Your task to perform on an android device: Open notification settings Image 0: 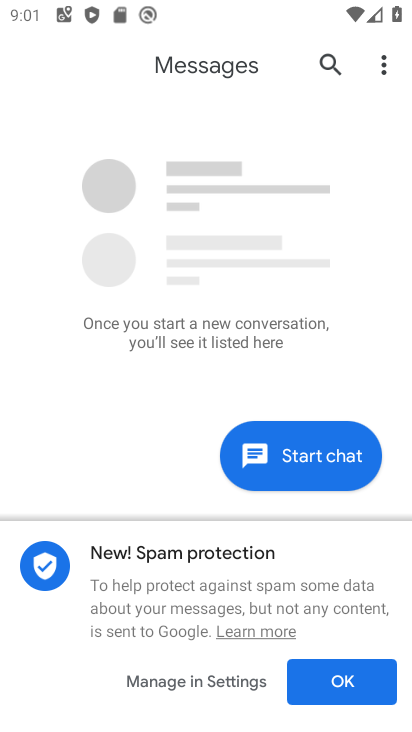
Step 0: press home button
Your task to perform on an android device: Open notification settings Image 1: 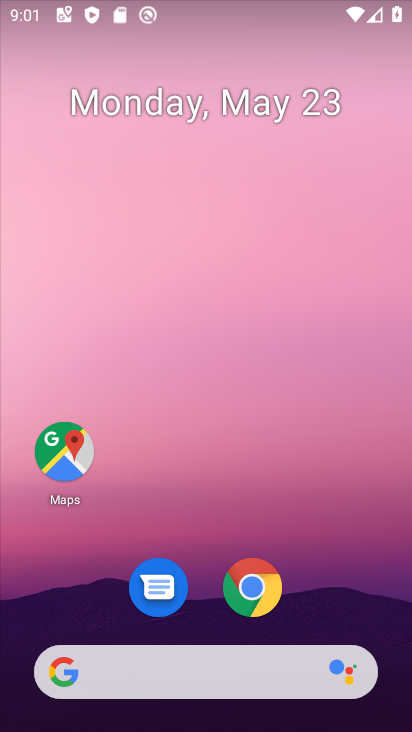
Step 1: drag from (368, 532) to (409, 134)
Your task to perform on an android device: Open notification settings Image 2: 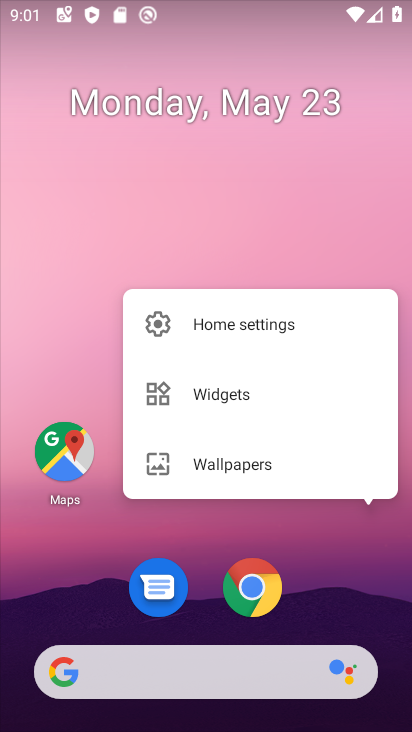
Step 2: click (321, 211)
Your task to perform on an android device: Open notification settings Image 3: 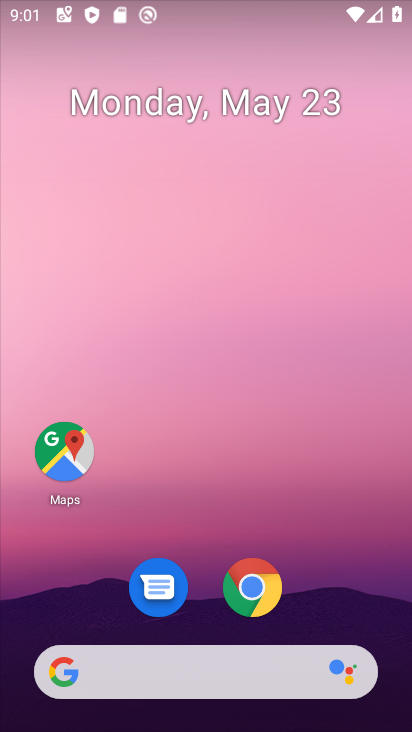
Step 3: click (343, 566)
Your task to perform on an android device: Open notification settings Image 4: 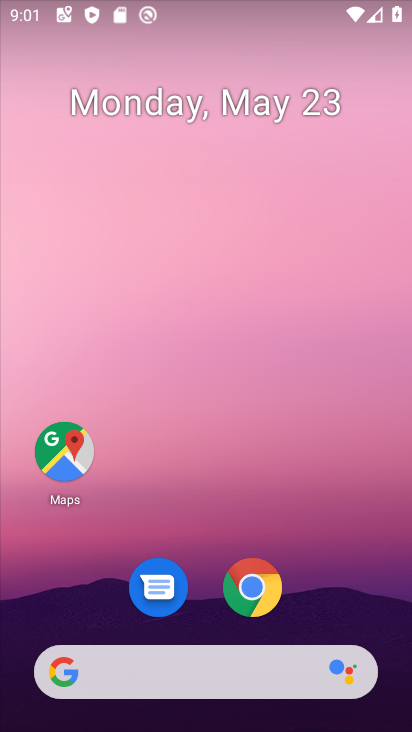
Step 4: drag from (343, 566) to (298, 303)
Your task to perform on an android device: Open notification settings Image 5: 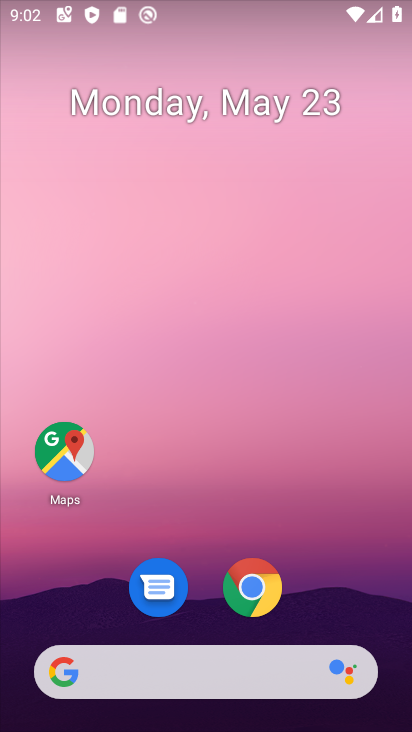
Step 5: drag from (352, 552) to (227, 38)
Your task to perform on an android device: Open notification settings Image 6: 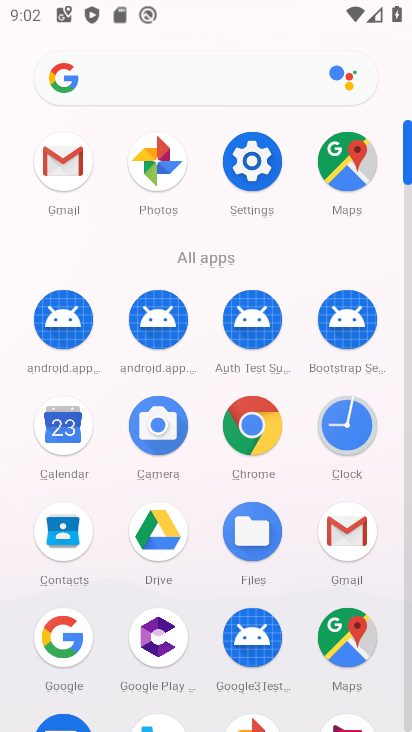
Step 6: click (249, 156)
Your task to perform on an android device: Open notification settings Image 7: 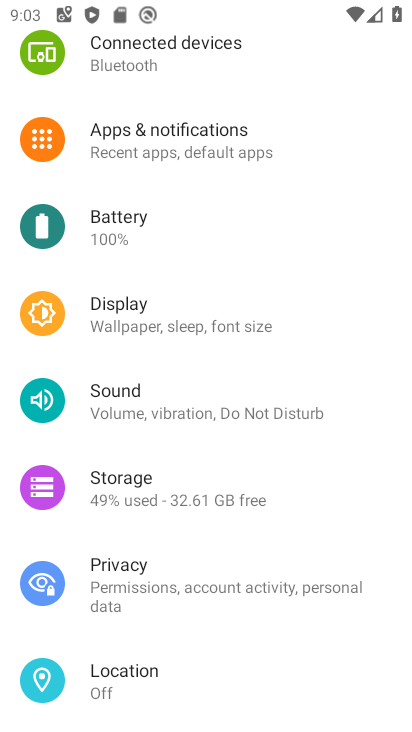
Step 7: click (162, 129)
Your task to perform on an android device: Open notification settings Image 8: 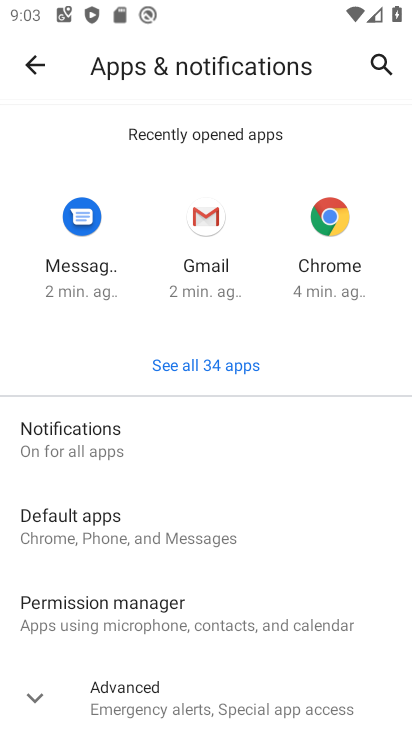
Step 8: click (69, 435)
Your task to perform on an android device: Open notification settings Image 9: 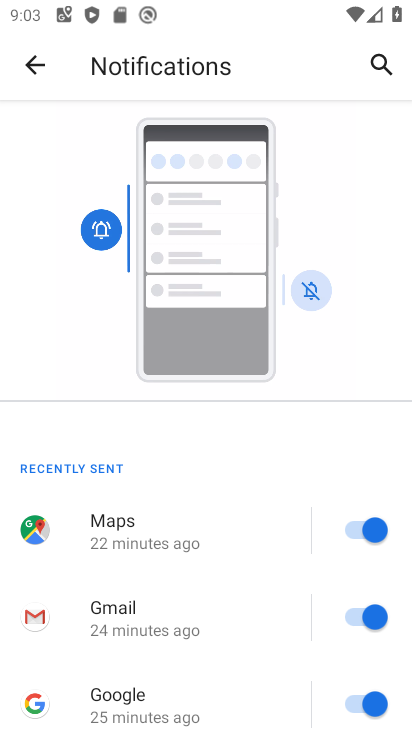
Step 9: task complete